Your task to perform on an android device: Go to Google Image 0: 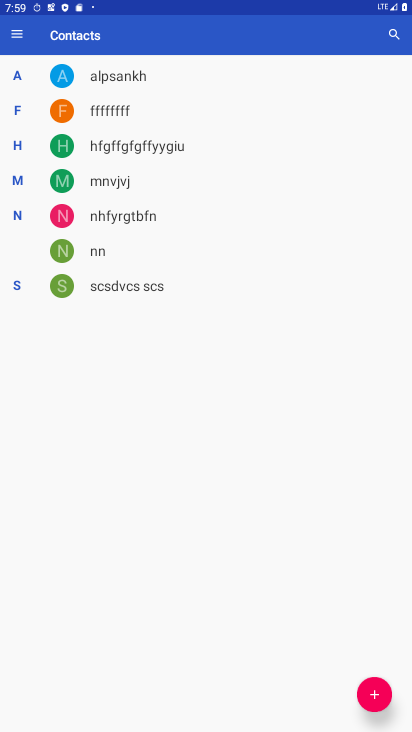
Step 0: press home button
Your task to perform on an android device: Go to Google Image 1: 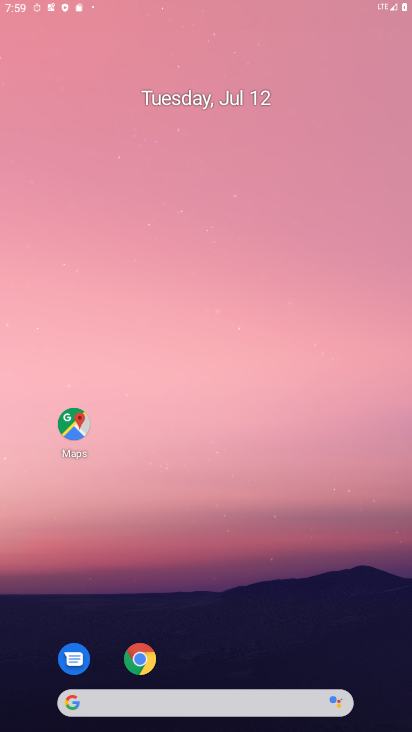
Step 1: drag from (339, 628) to (175, 1)
Your task to perform on an android device: Go to Google Image 2: 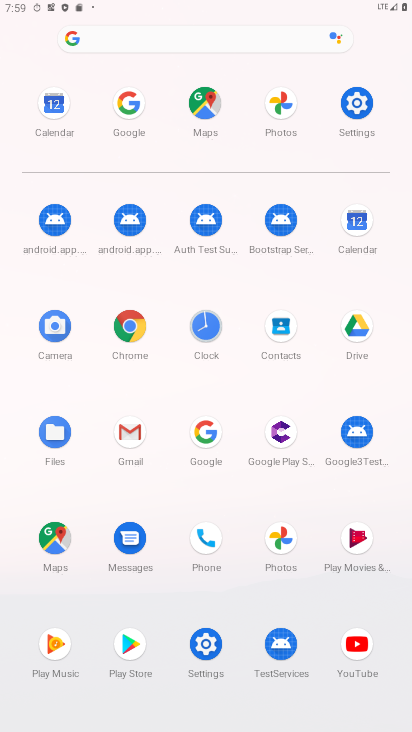
Step 2: click (209, 433)
Your task to perform on an android device: Go to Google Image 3: 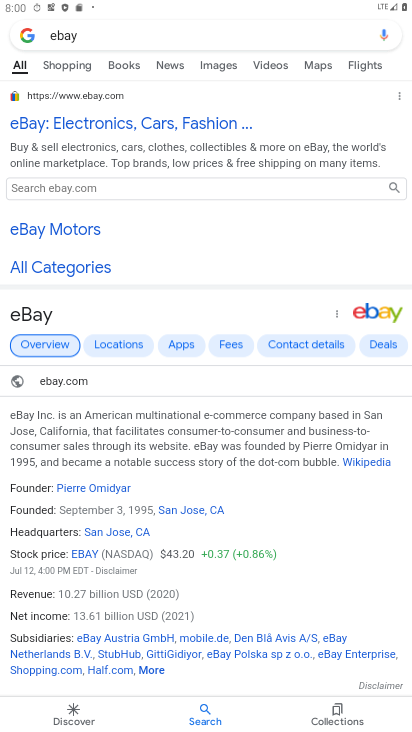
Step 3: task complete